Your task to perform on an android device: Open internet settings Image 0: 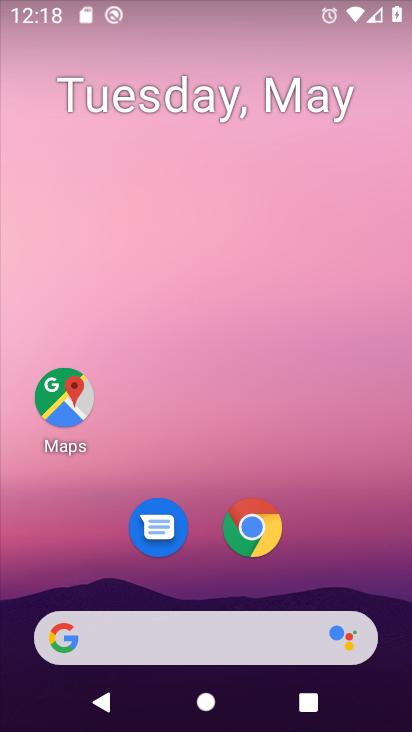
Step 0: drag from (279, 644) to (261, 102)
Your task to perform on an android device: Open internet settings Image 1: 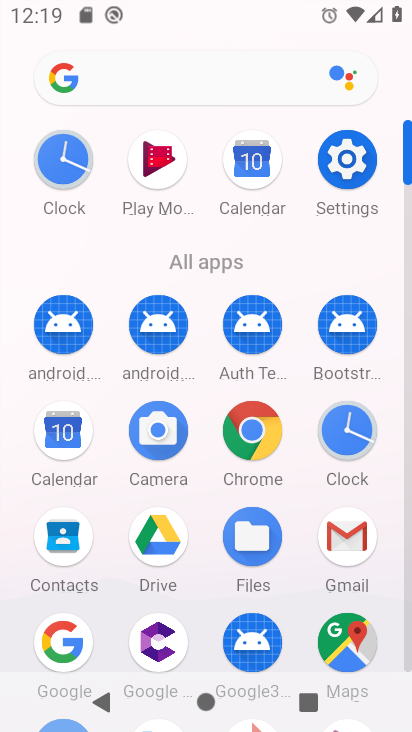
Step 1: click (362, 165)
Your task to perform on an android device: Open internet settings Image 2: 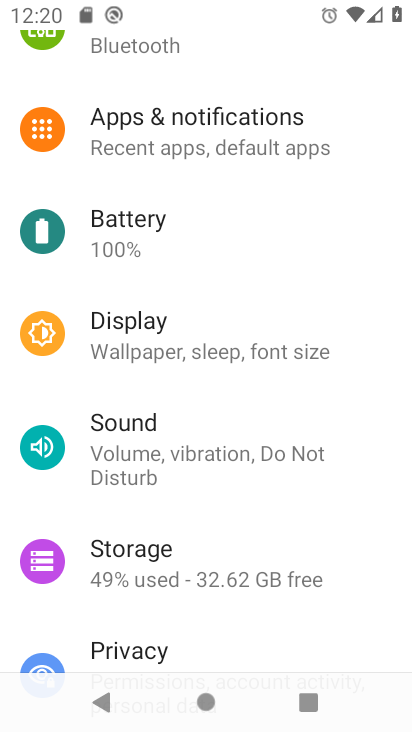
Step 2: drag from (316, 171) to (237, 547)
Your task to perform on an android device: Open internet settings Image 3: 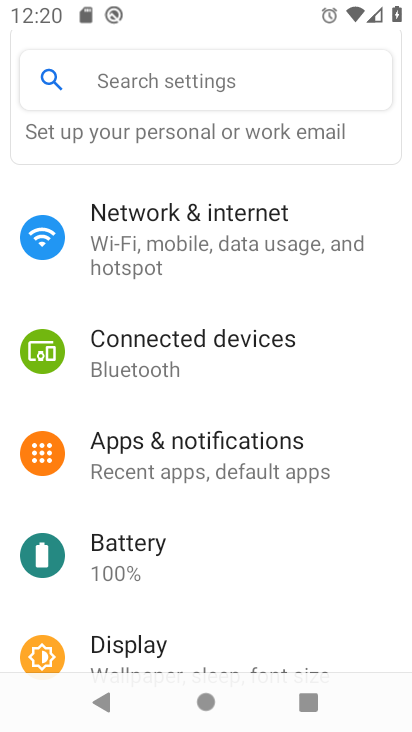
Step 3: click (240, 226)
Your task to perform on an android device: Open internet settings Image 4: 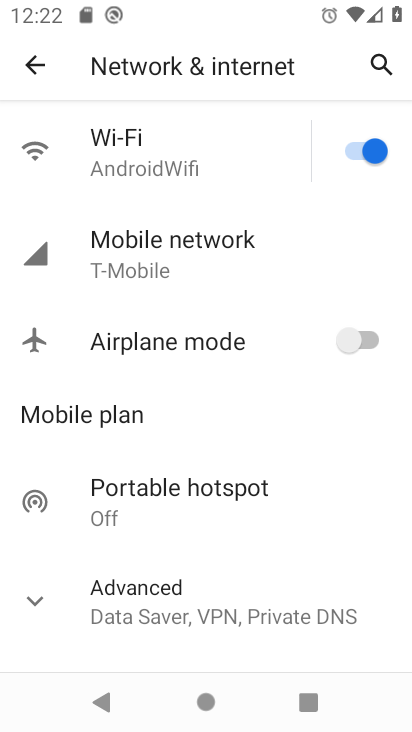
Step 4: task complete